Your task to perform on an android device: Open maps Image 0: 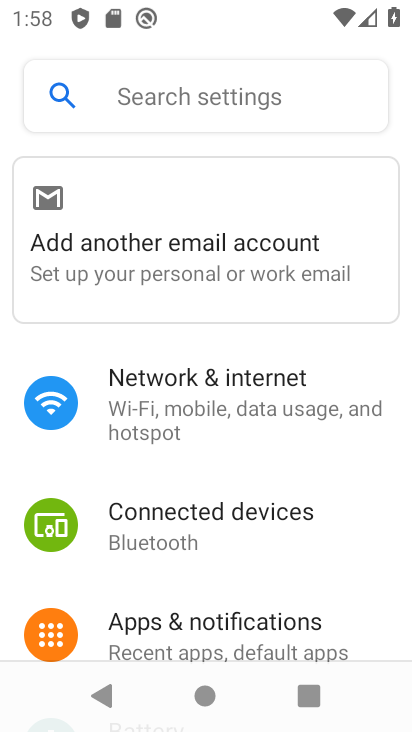
Step 0: press home button
Your task to perform on an android device: Open maps Image 1: 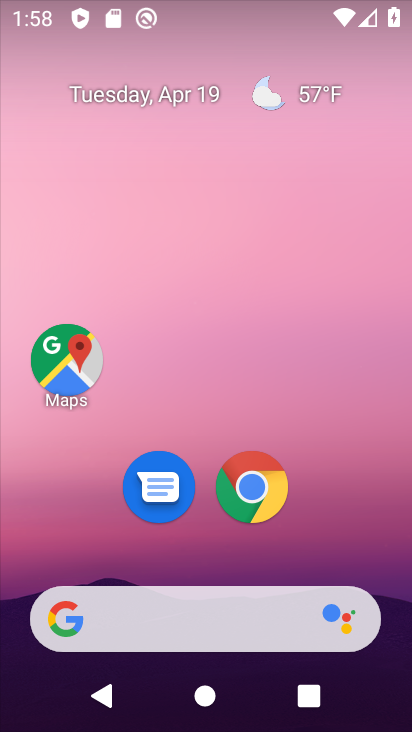
Step 1: click (54, 390)
Your task to perform on an android device: Open maps Image 2: 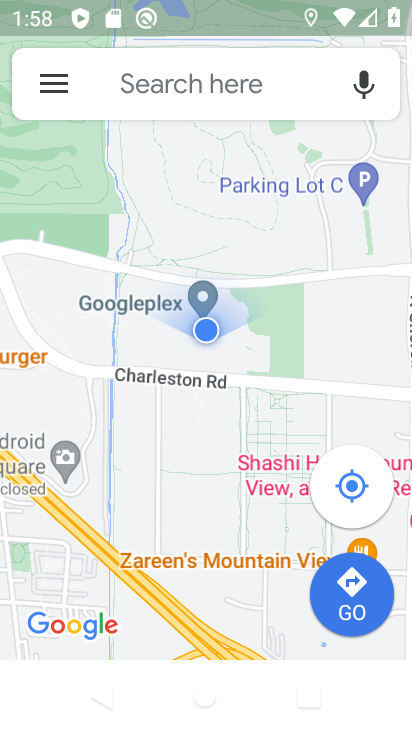
Step 2: task complete